Your task to perform on an android device: turn on translation in the chrome app Image 0: 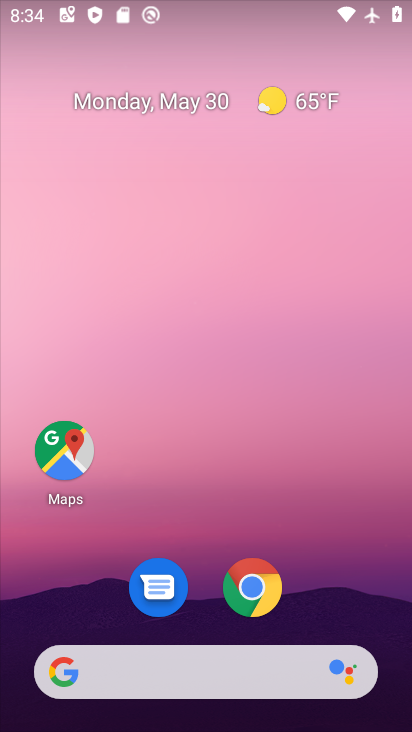
Step 0: press home button
Your task to perform on an android device: turn on translation in the chrome app Image 1: 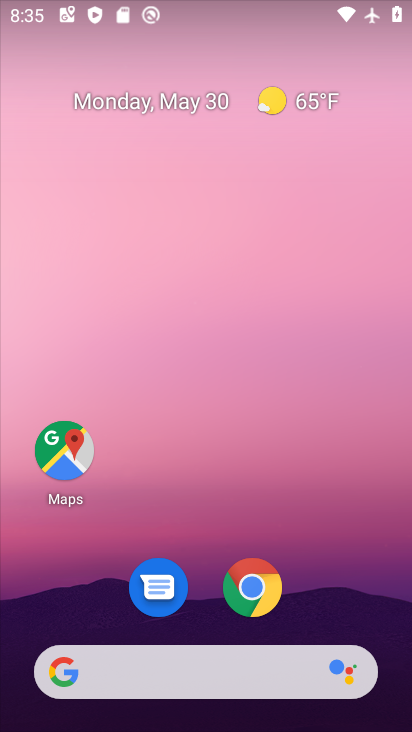
Step 1: click (252, 589)
Your task to perform on an android device: turn on translation in the chrome app Image 2: 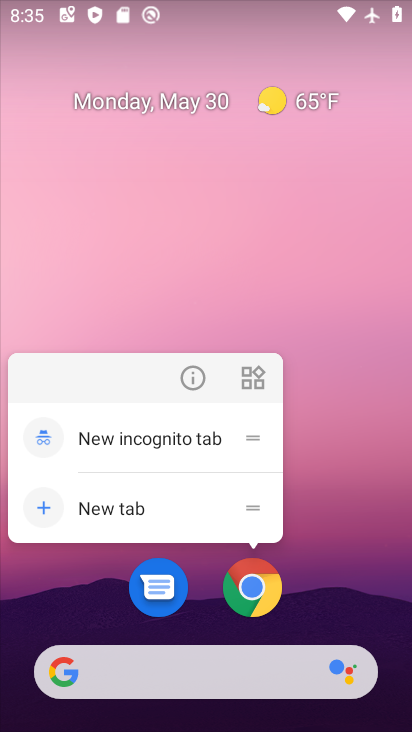
Step 2: click (258, 597)
Your task to perform on an android device: turn on translation in the chrome app Image 3: 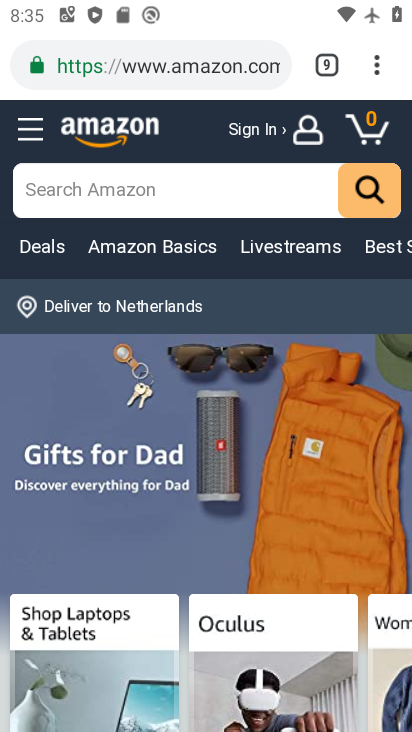
Step 3: drag from (379, 76) to (296, 633)
Your task to perform on an android device: turn on translation in the chrome app Image 4: 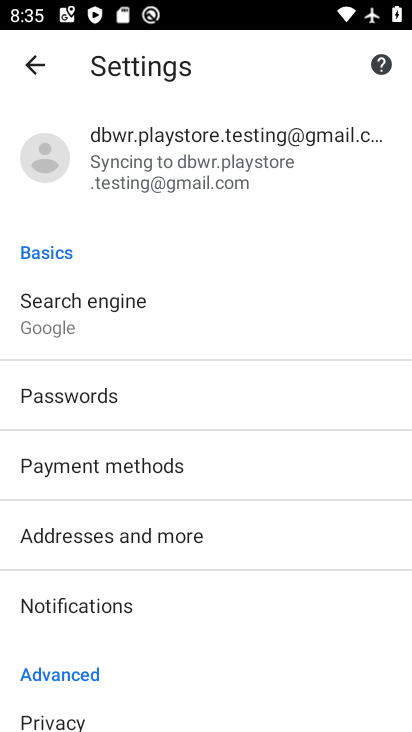
Step 4: drag from (264, 552) to (306, 157)
Your task to perform on an android device: turn on translation in the chrome app Image 5: 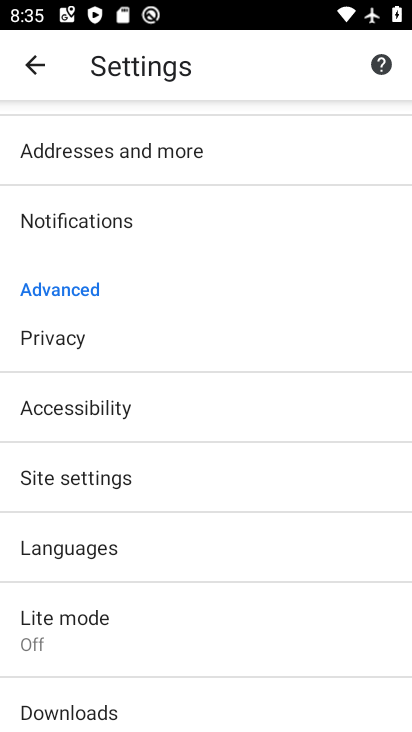
Step 5: click (96, 560)
Your task to perform on an android device: turn on translation in the chrome app Image 6: 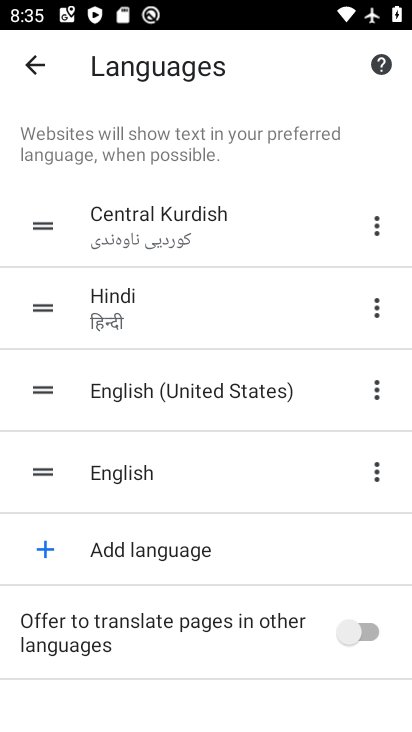
Step 6: click (369, 627)
Your task to perform on an android device: turn on translation in the chrome app Image 7: 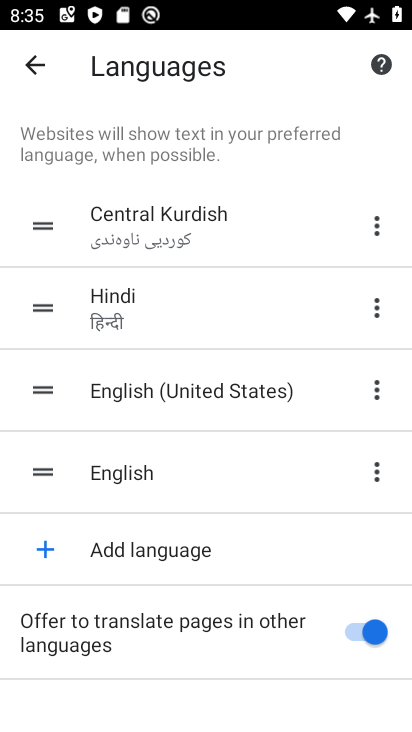
Step 7: task complete